Your task to perform on an android device: turn off wifi Image 0: 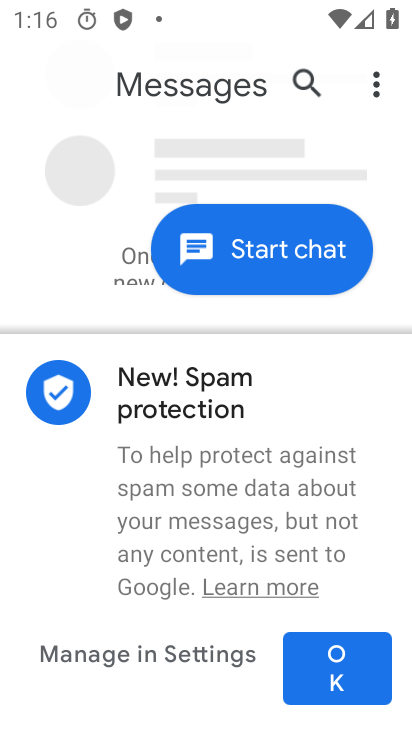
Step 0: press home button
Your task to perform on an android device: turn off wifi Image 1: 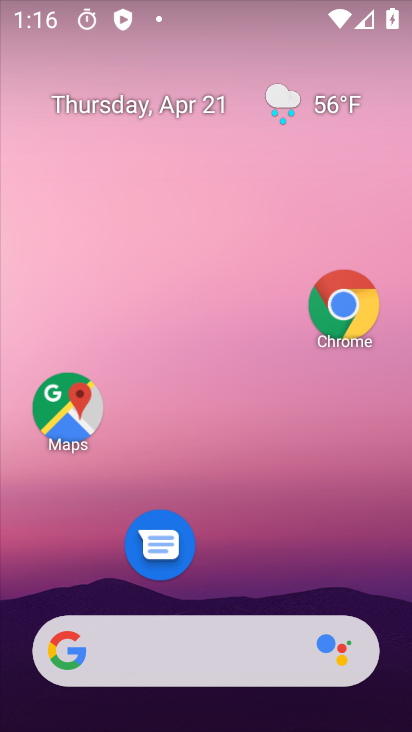
Step 1: drag from (160, 651) to (297, 236)
Your task to perform on an android device: turn off wifi Image 2: 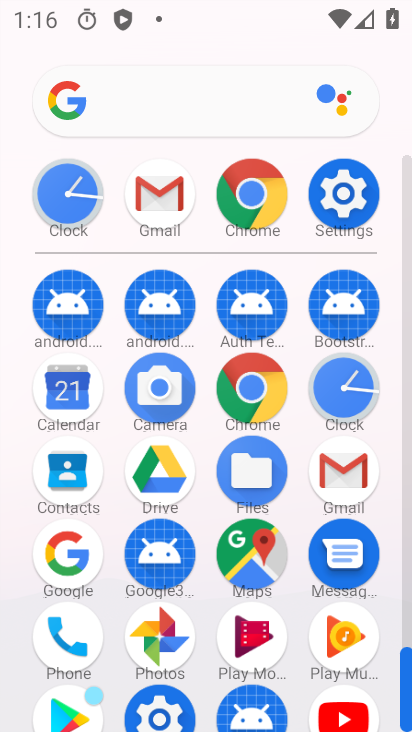
Step 2: click (332, 195)
Your task to perform on an android device: turn off wifi Image 3: 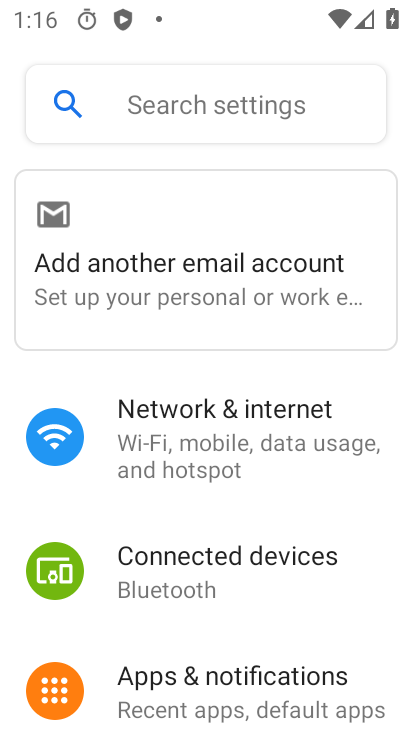
Step 3: click (274, 435)
Your task to perform on an android device: turn off wifi Image 4: 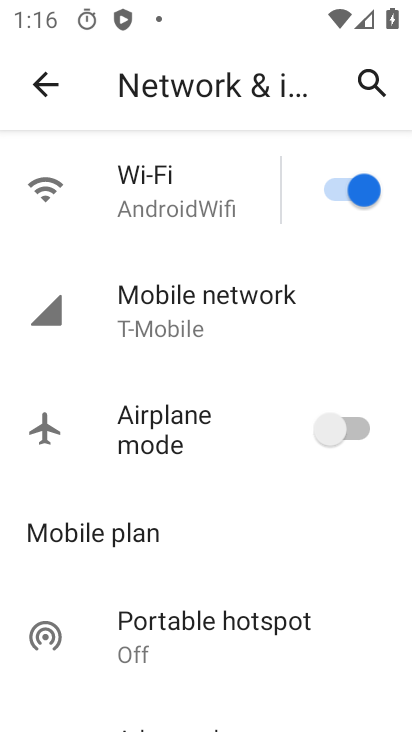
Step 4: click (342, 190)
Your task to perform on an android device: turn off wifi Image 5: 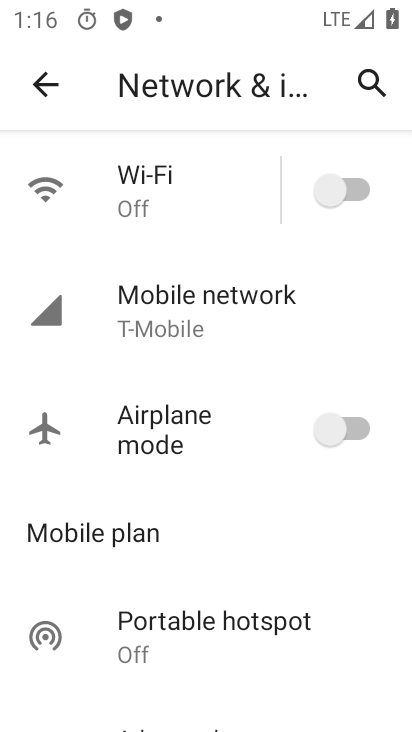
Step 5: task complete